Your task to perform on an android device: set default search engine in the chrome app Image 0: 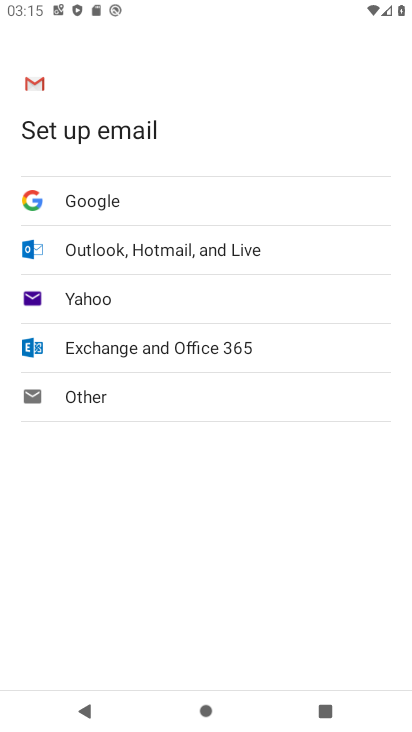
Step 0: press home button
Your task to perform on an android device: set default search engine in the chrome app Image 1: 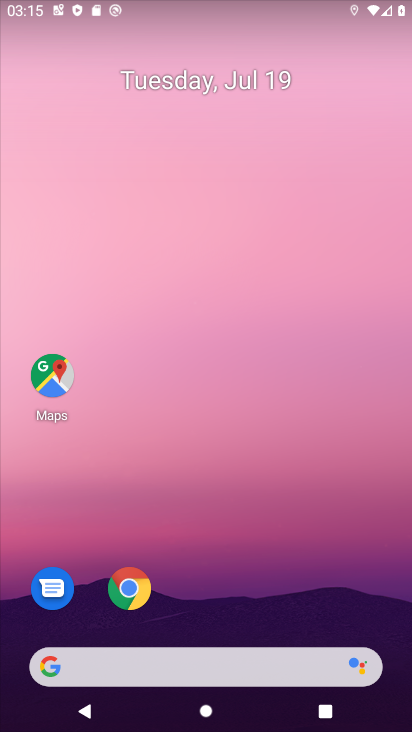
Step 1: click (132, 589)
Your task to perform on an android device: set default search engine in the chrome app Image 2: 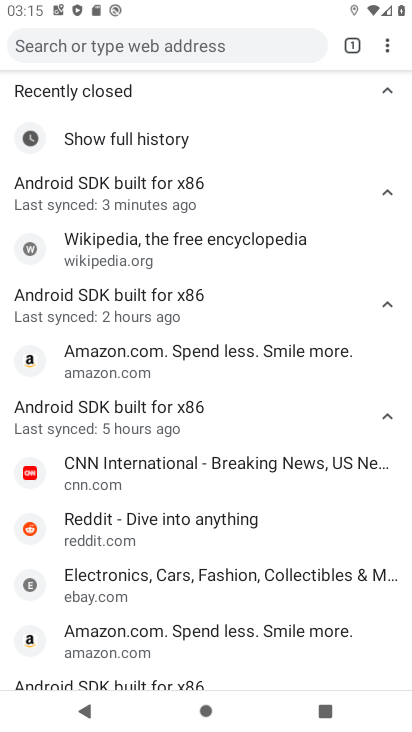
Step 2: click (386, 37)
Your task to perform on an android device: set default search engine in the chrome app Image 3: 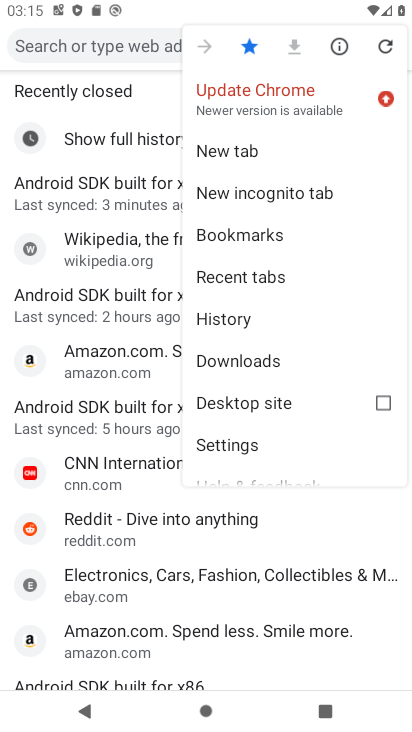
Step 3: click (230, 443)
Your task to perform on an android device: set default search engine in the chrome app Image 4: 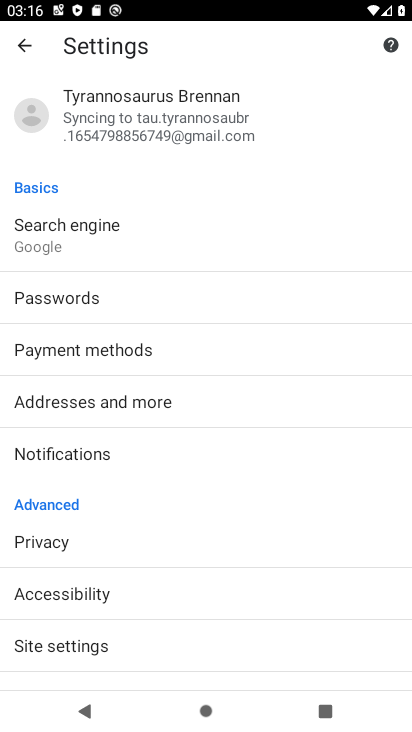
Step 4: click (64, 218)
Your task to perform on an android device: set default search engine in the chrome app Image 5: 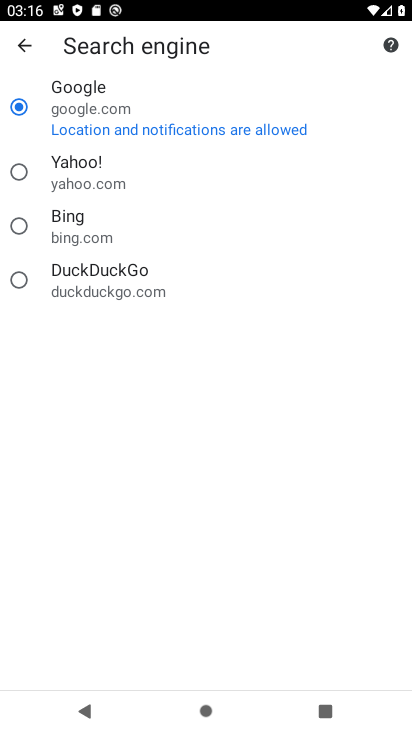
Step 5: click (23, 172)
Your task to perform on an android device: set default search engine in the chrome app Image 6: 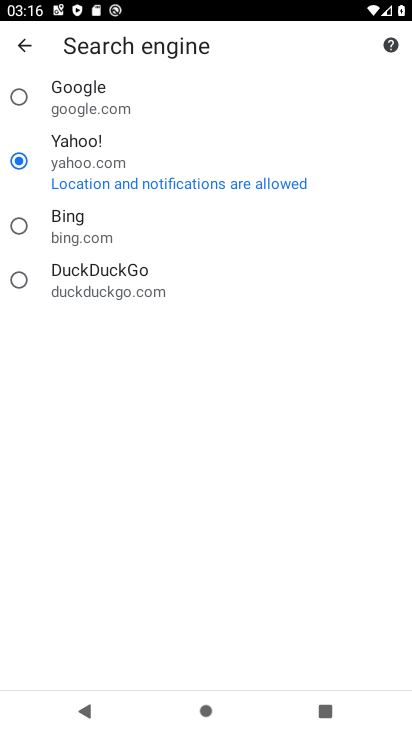
Step 6: task complete